Your task to perform on an android device: Go to settings Image 0: 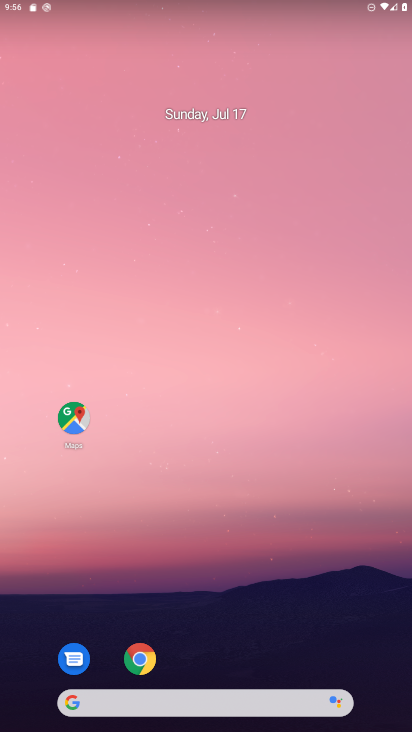
Step 0: drag from (258, 628) to (227, 0)
Your task to perform on an android device: Go to settings Image 1: 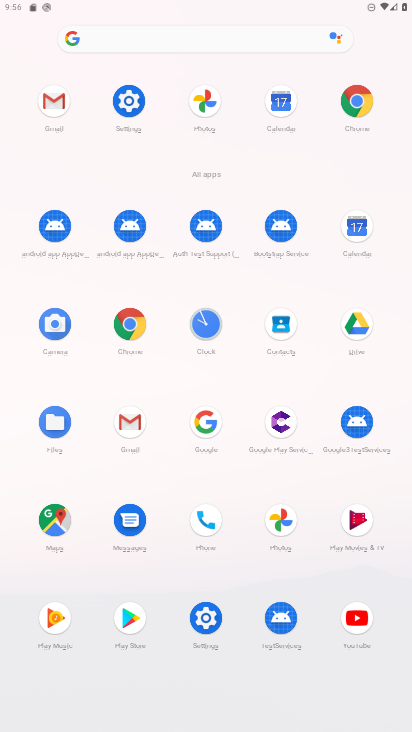
Step 1: click (207, 611)
Your task to perform on an android device: Go to settings Image 2: 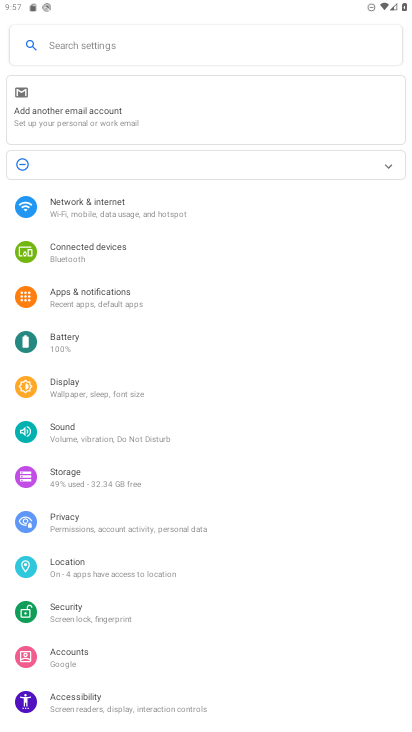
Step 2: task complete